Your task to perform on an android device: What is the news today? Image 0: 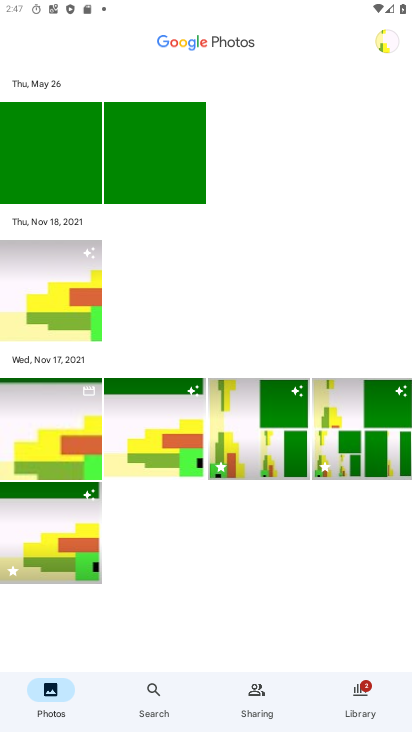
Step 0: press home button
Your task to perform on an android device: What is the news today? Image 1: 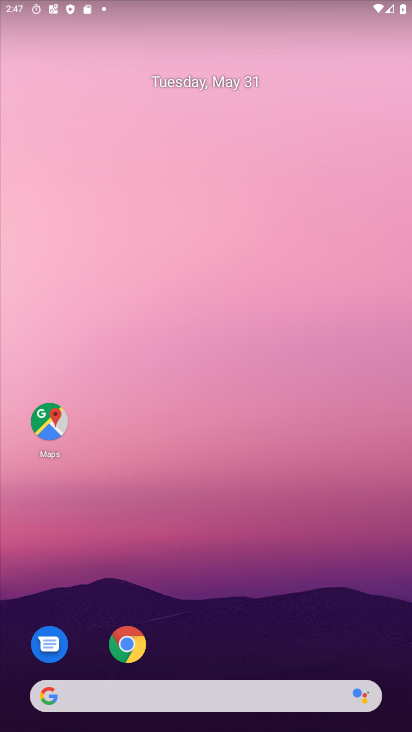
Step 1: task complete